Your task to perform on an android device: find photos in the google photos app Image 0: 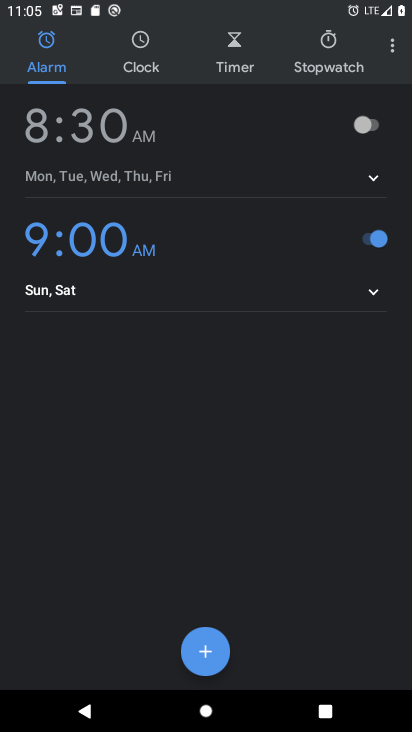
Step 0: press home button
Your task to perform on an android device: find photos in the google photos app Image 1: 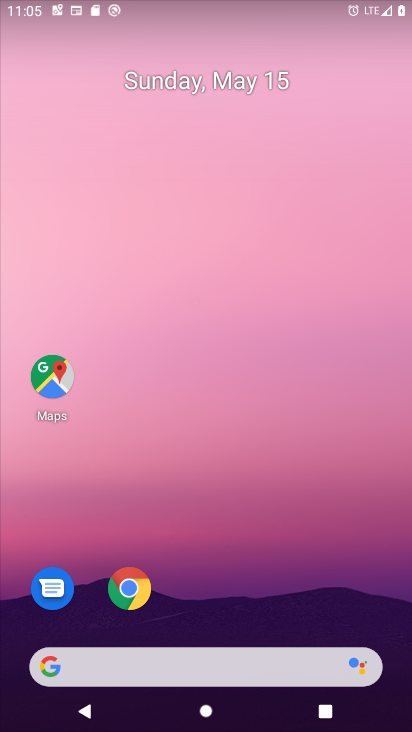
Step 1: drag from (221, 615) to (238, 184)
Your task to perform on an android device: find photos in the google photos app Image 2: 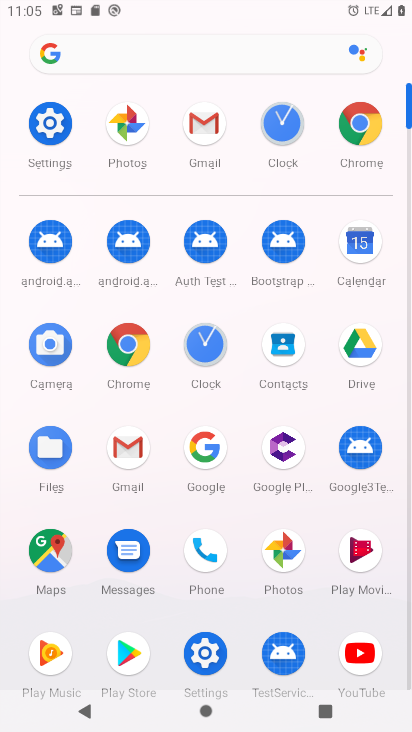
Step 2: click (284, 558)
Your task to perform on an android device: find photos in the google photos app Image 3: 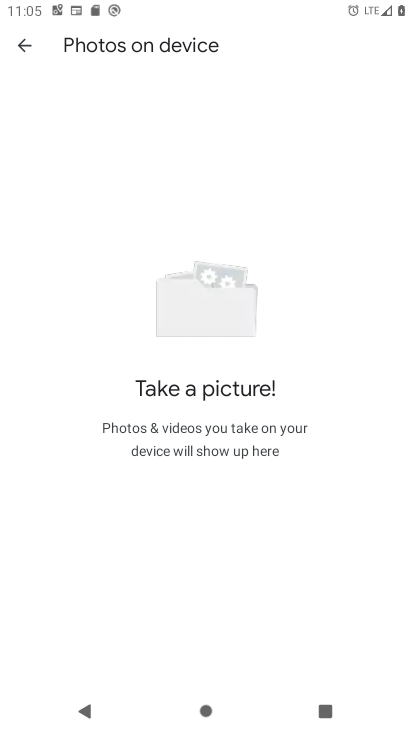
Step 3: click (24, 42)
Your task to perform on an android device: find photos in the google photos app Image 4: 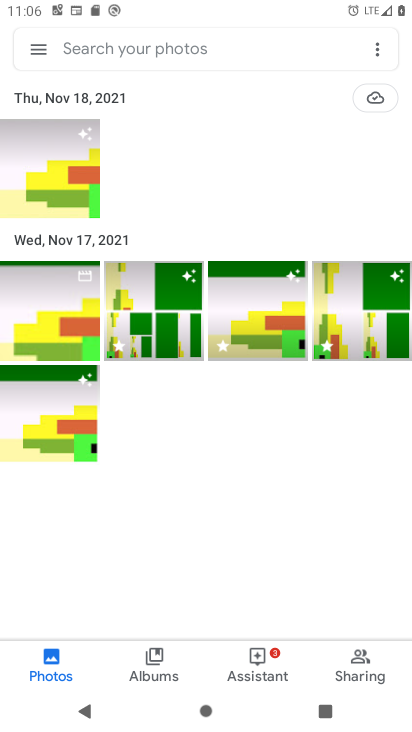
Step 4: task complete